Your task to perform on an android device: check data usage Image 0: 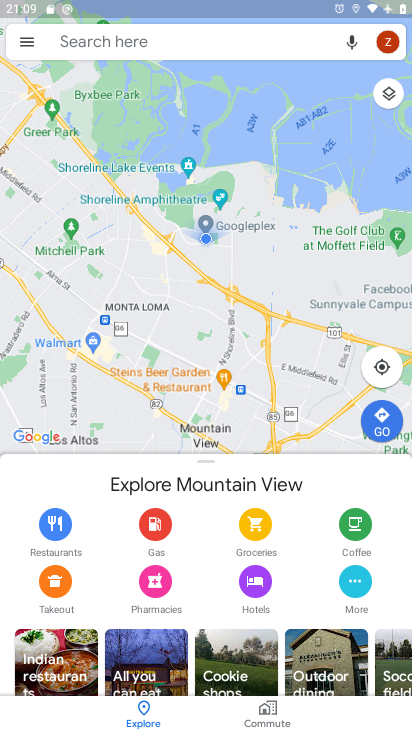
Step 0: press home button
Your task to perform on an android device: check data usage Image 1: 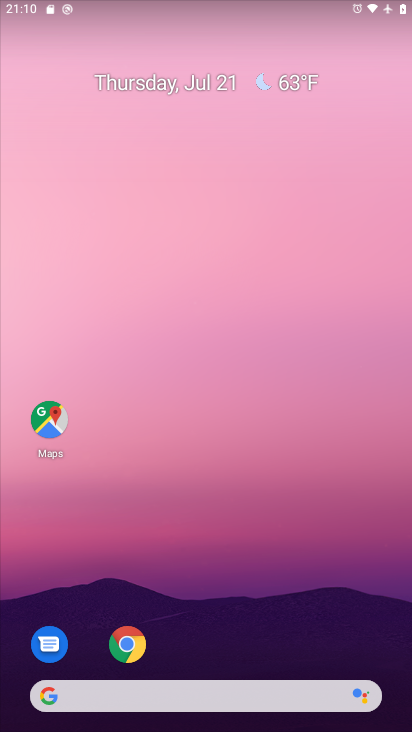
Step 1: drag from (270, 660) to (166, 106)
Your task to perform on an android device: check data usage Image 2: 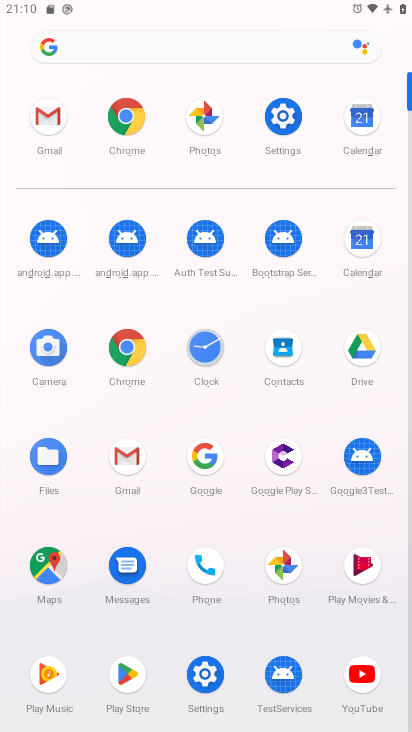
Step 2: click (284, 120)
Your task to perform on an android device: check data usage Image 3: 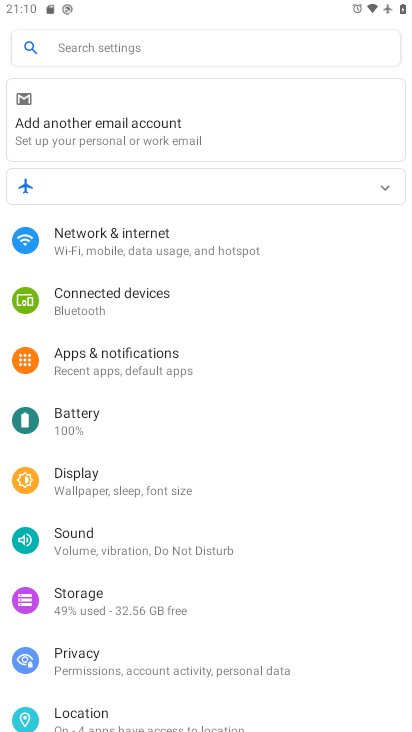
Step 3: click (137, 237)
Your task to perform on an android device: check data usage Image 4: 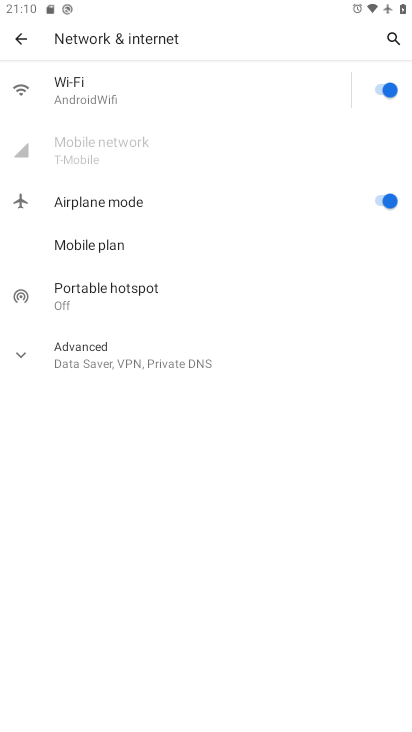
Step 4: click (101, 144)
Your task to perform on an android device: check data usage Image 5: 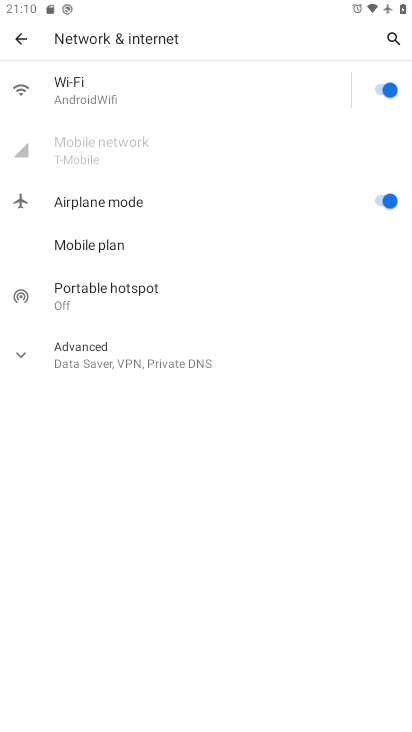
Step 5: click (101, 144)
Your task to perform on an android device: check data usage Image 6: 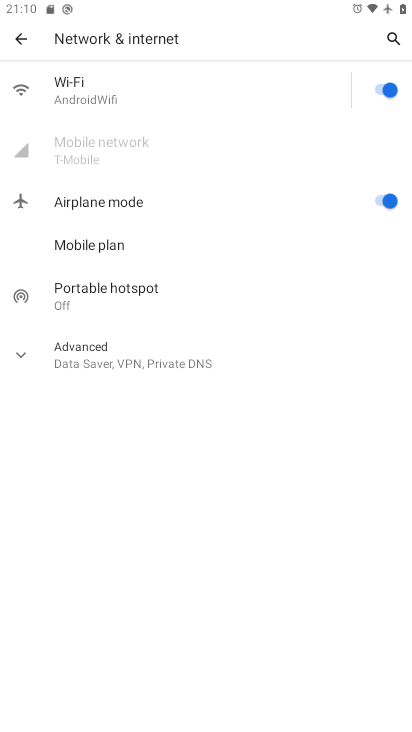
Step 6: task complete